Your task to perform on an android device: open chrome privacy settings Image 0: 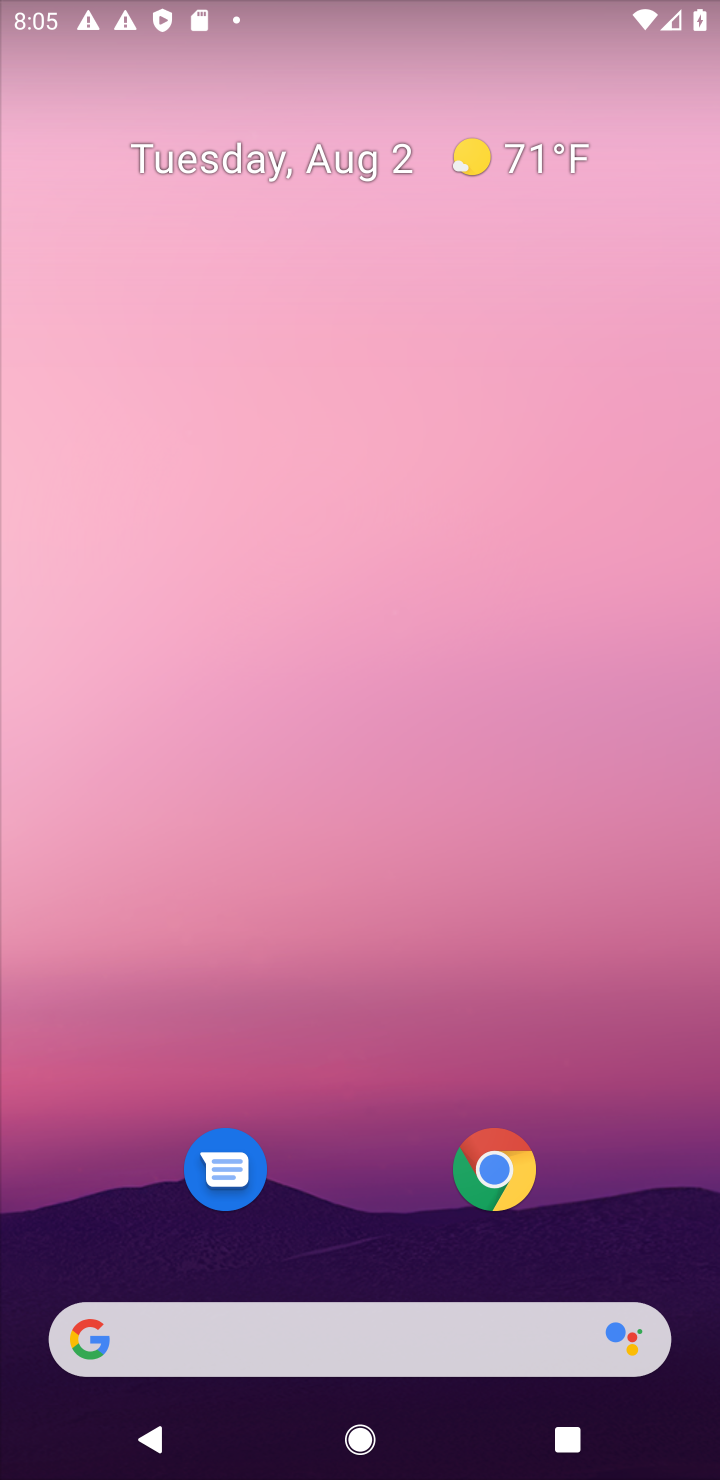
Step 0: click (486, 1165)
Your task to perform on an android device: open chrome privacy settings Image 1: 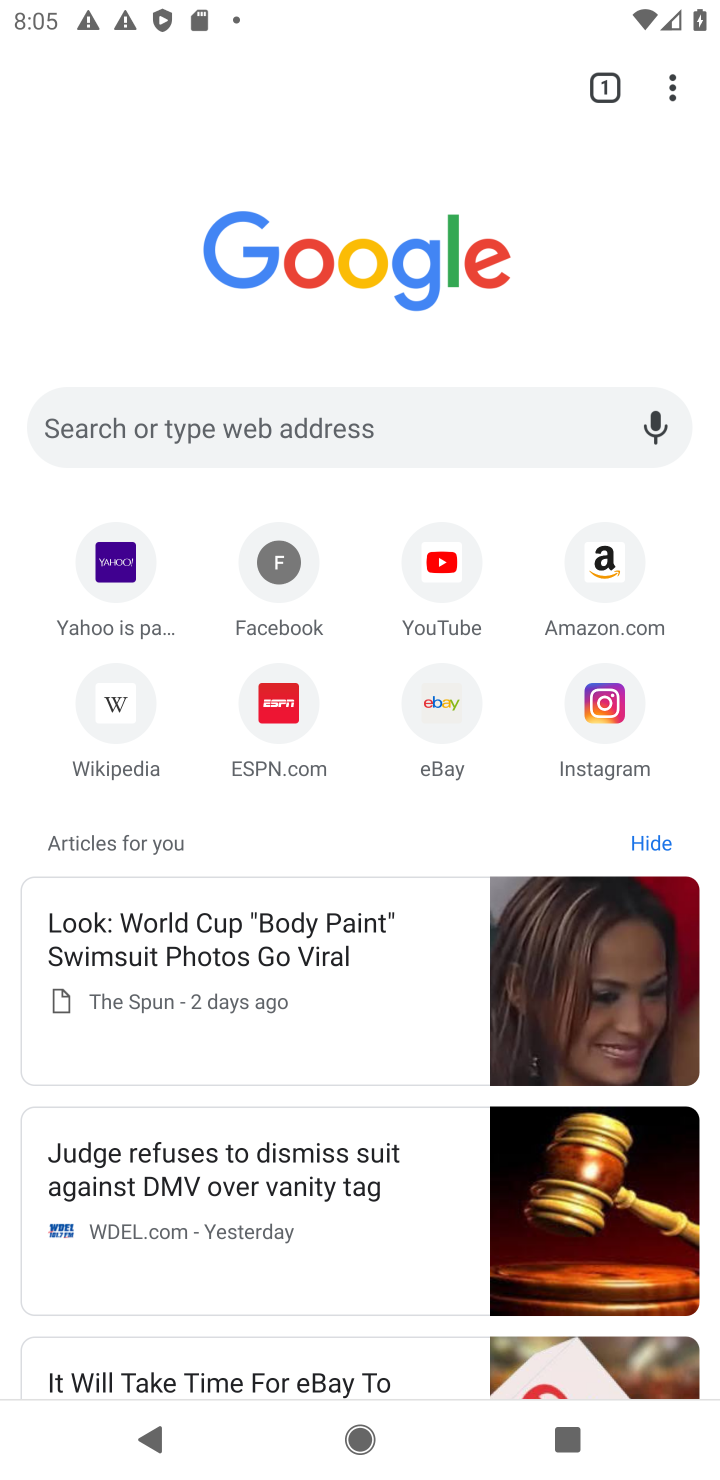
Step 1: click (670, 82)
Your task to perform on an android device: open chrome privacy settings Image 2: 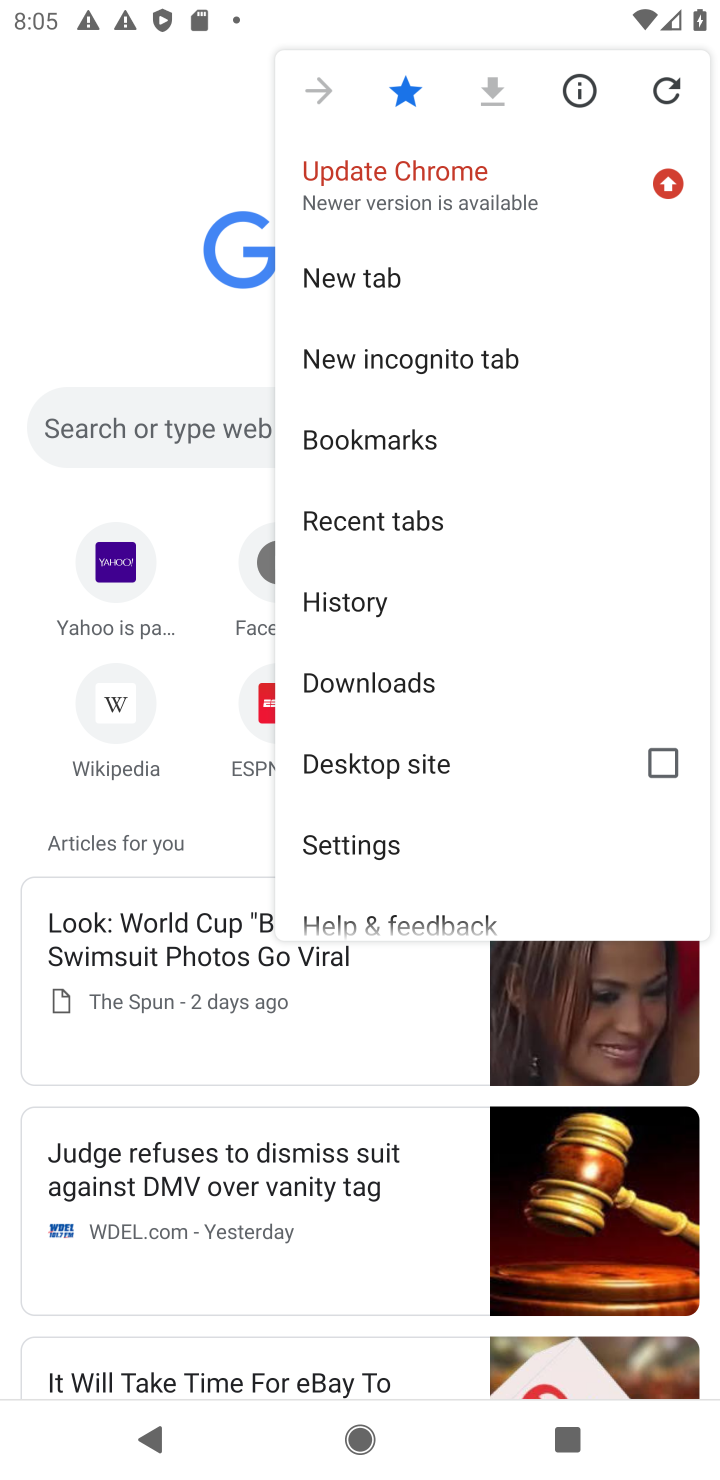
Step 2: click (384, 833)
Your task to perform on an android device: open chrome privacy settings Image 3: 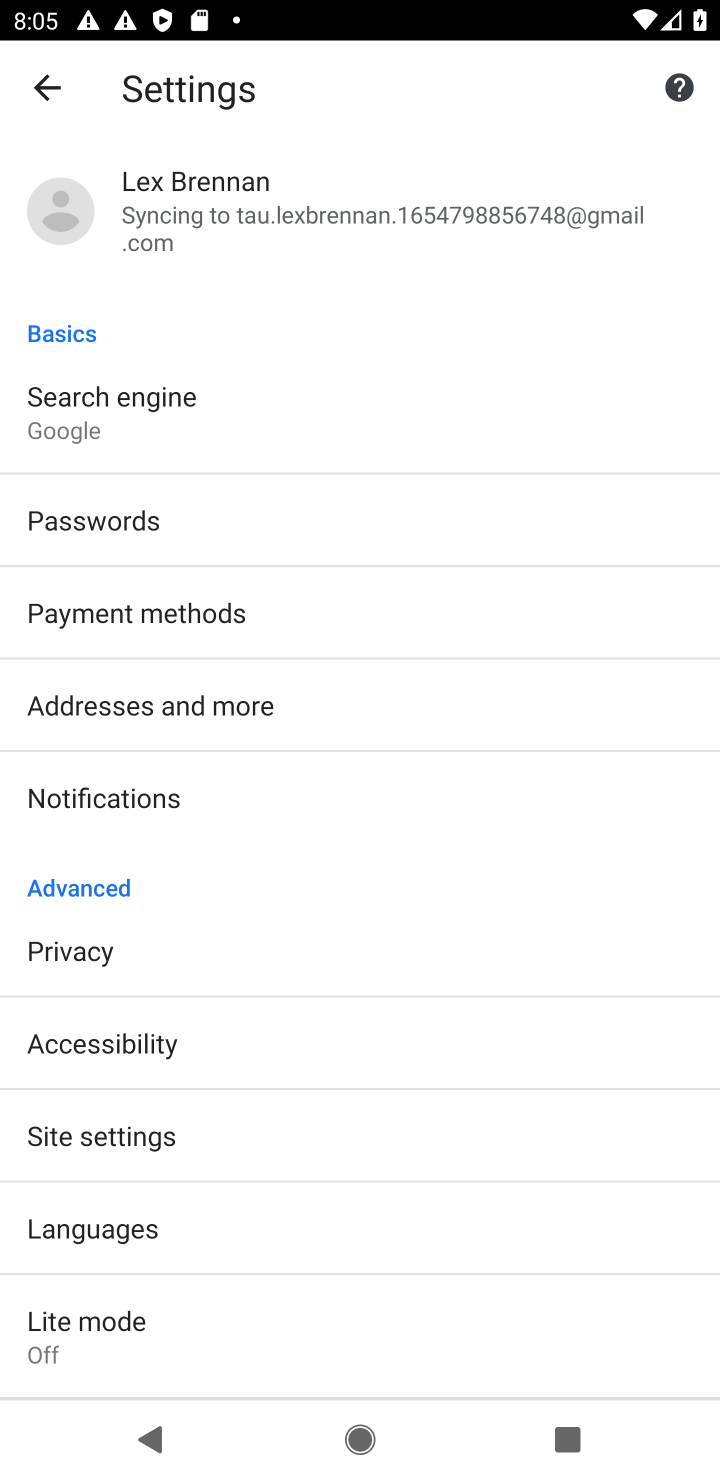
Step 3: click (211, 962)
Your task to perform on an android device: open chrome privacy settings Image 4: 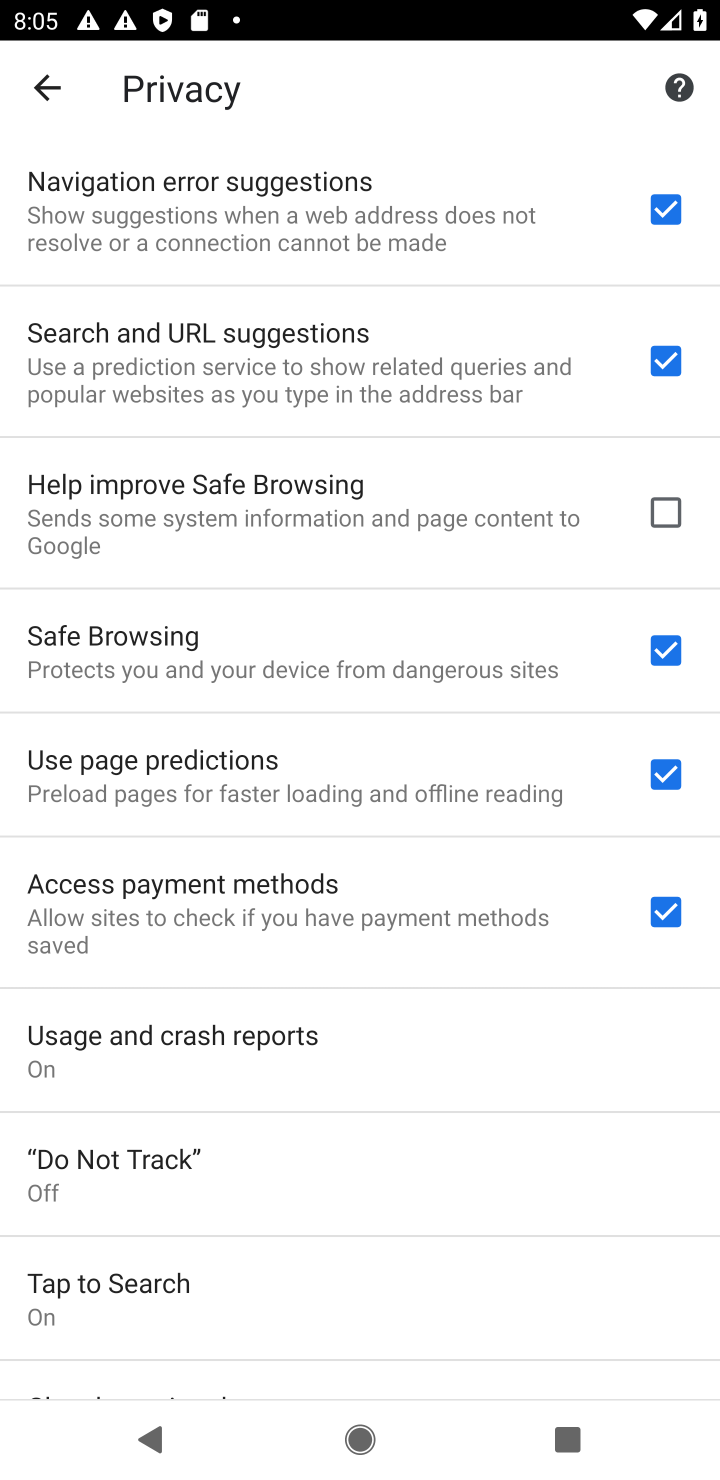
Step 4: task complete